Your task to perform on an android device: Open the stopwatch Image 0: 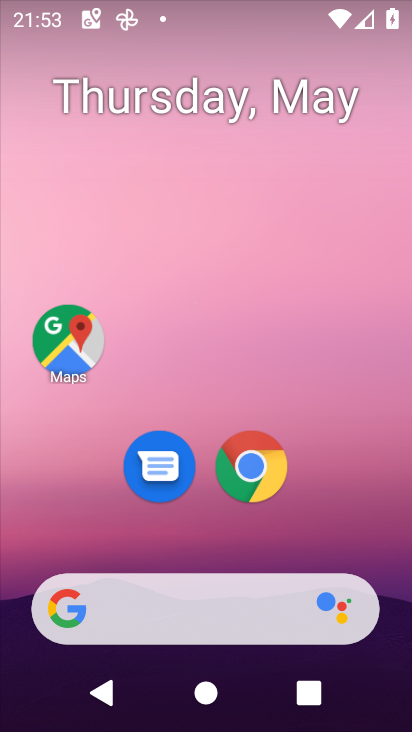
Step 0: drag from (354, 527) to (313, 118)
Your task to perform on an android device: Open the stopwatch Image 1: 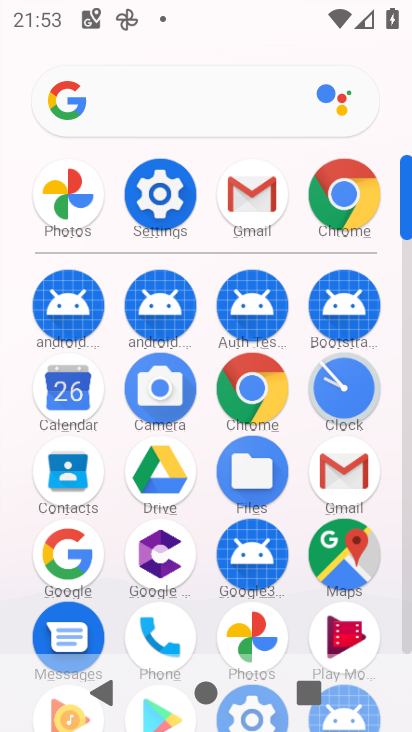
Step 1: click (356, 417)
Your task to perform on an android device: Open the stopwatch Image 2: 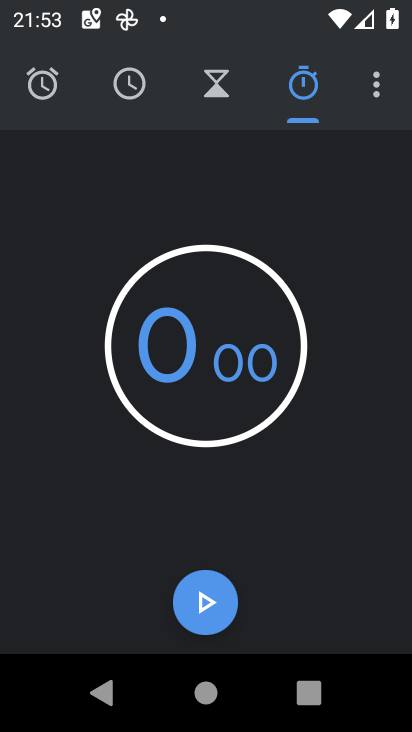
Step 2: task complete